Your task to perform on an android device: Turn on the flashlight Image 0: 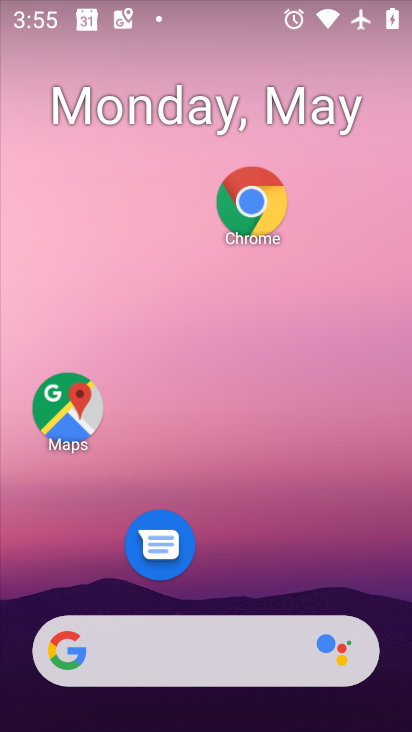
Step 0: drag from (293, 550) to (297, 145)
Your task to perform on an android device: Turn on the flashlight Image 1: 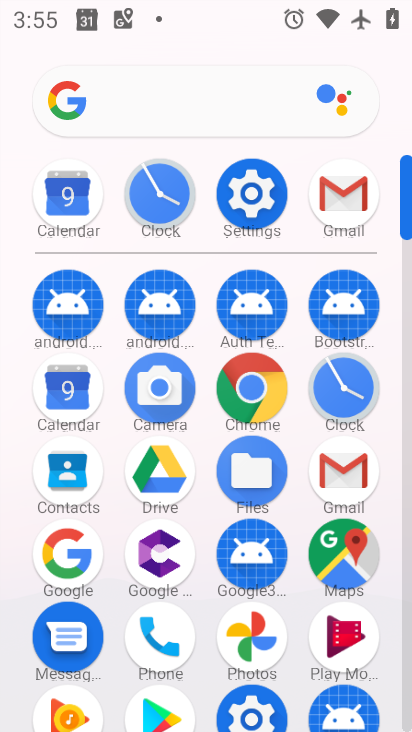
Step 1: click (270, 196)
Your task to perform on an android device: Turn on the flashlight Image 2: 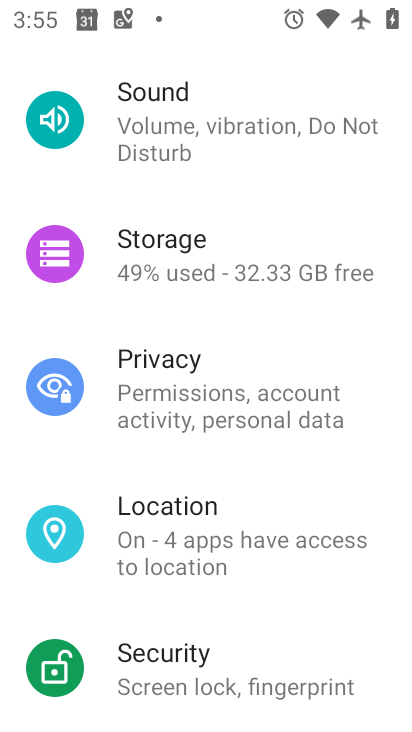
Step 2: drag from (260, 238) to (302, 569)
Your task to perform on an android device: Turn on the flashlight Image 3: 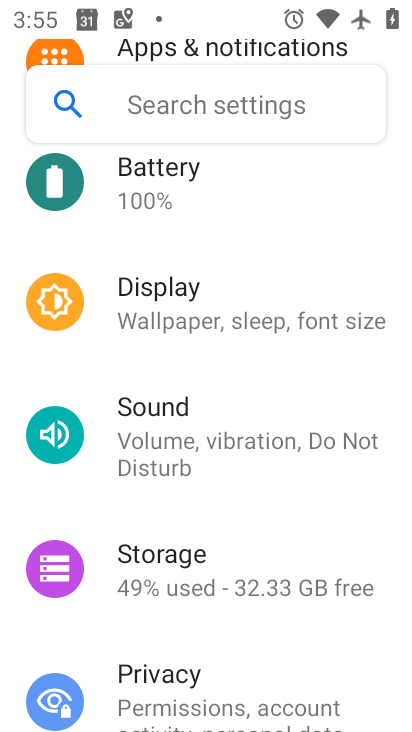
Step 3: click (222, 271)
Your task to perform on an android device: Turn on the flashlight Image 4: 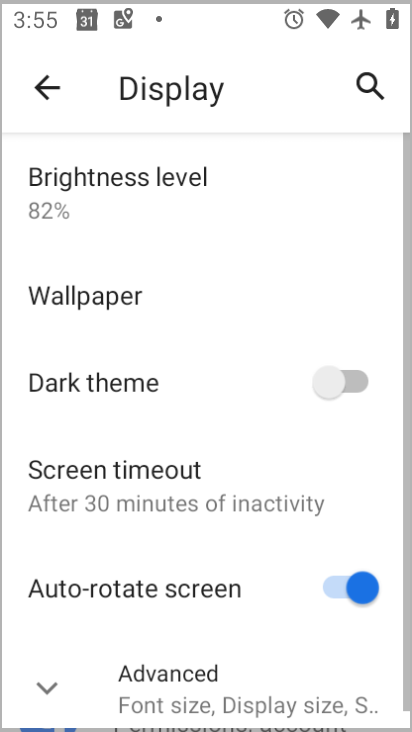
Step 4: task complete